Your task to perform on an android device: Go to location settings Image 0: 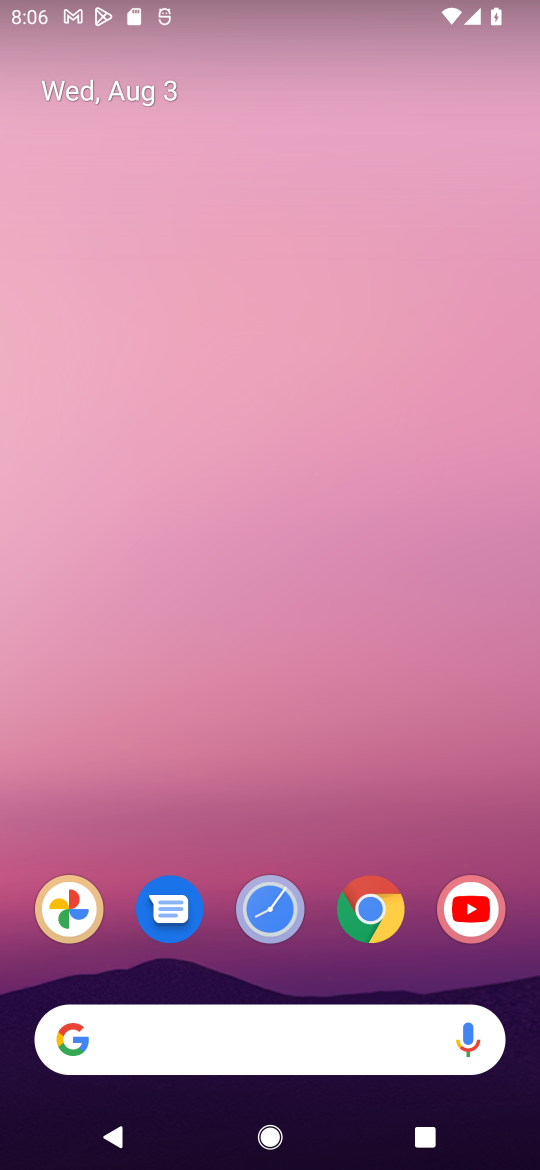
Step 0: drag from (312, 853) to (340, 323)
Your task to perform on an android device: Go to location settings Image 1: 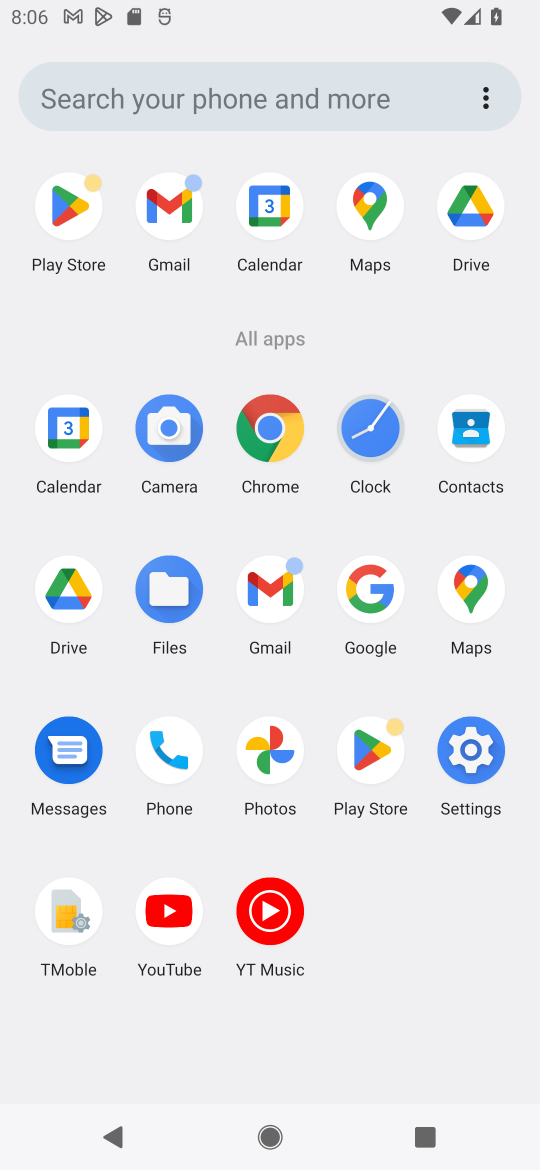
Step 1: click (487, 770)
Your task to perform on an android device: Go to location settings Image 2: 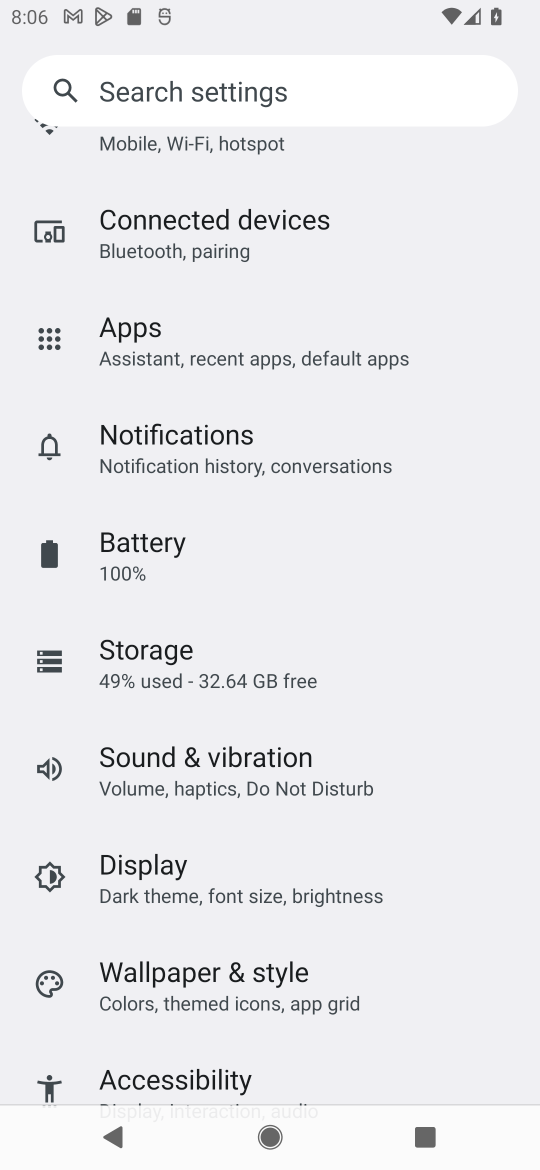
Step 2: drag from (427, 967) to (448, 842)
Your task to perform on an android device: Go to location settings Image 3: 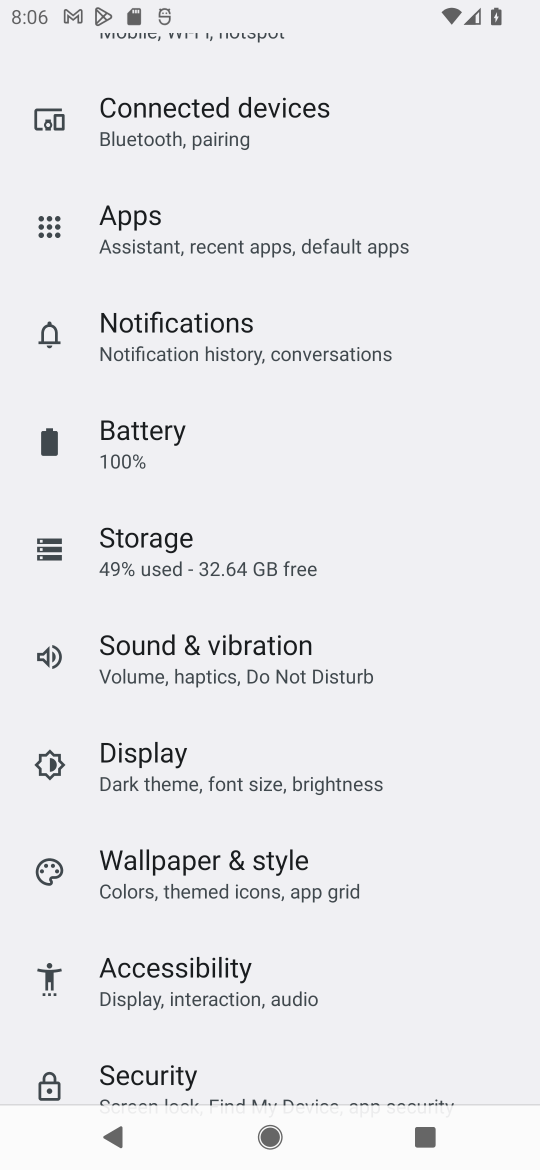
Step 3: drag from (431, 1005) to (442, 866)
Your task to perform on an android device: Go to location settings Image 4: 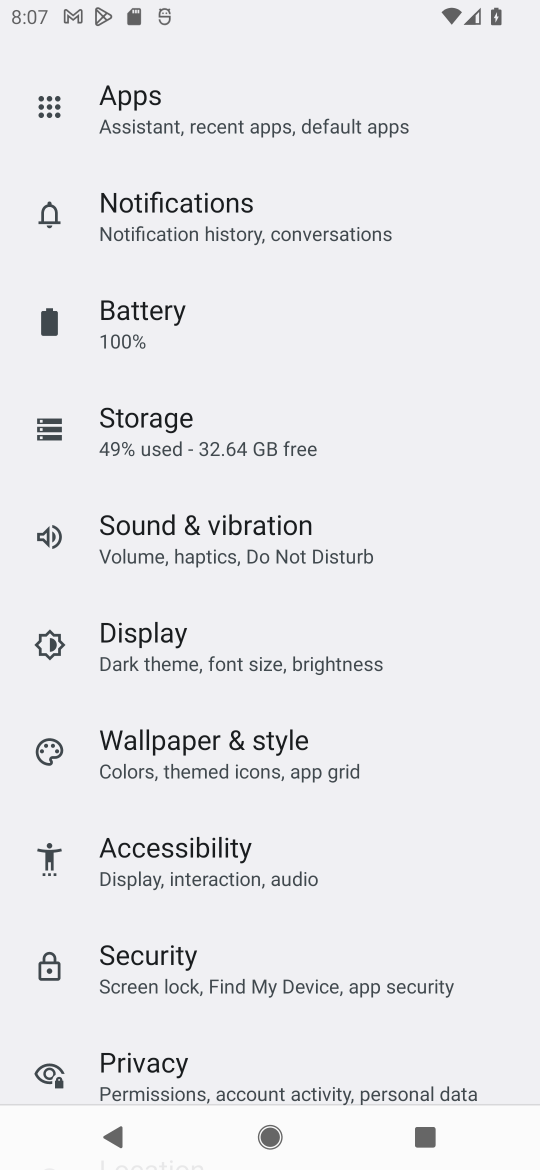
Step 4: drag from (463, 996) to (472, 698)
Your task to perform on an android device: Go to location settings Image 5: 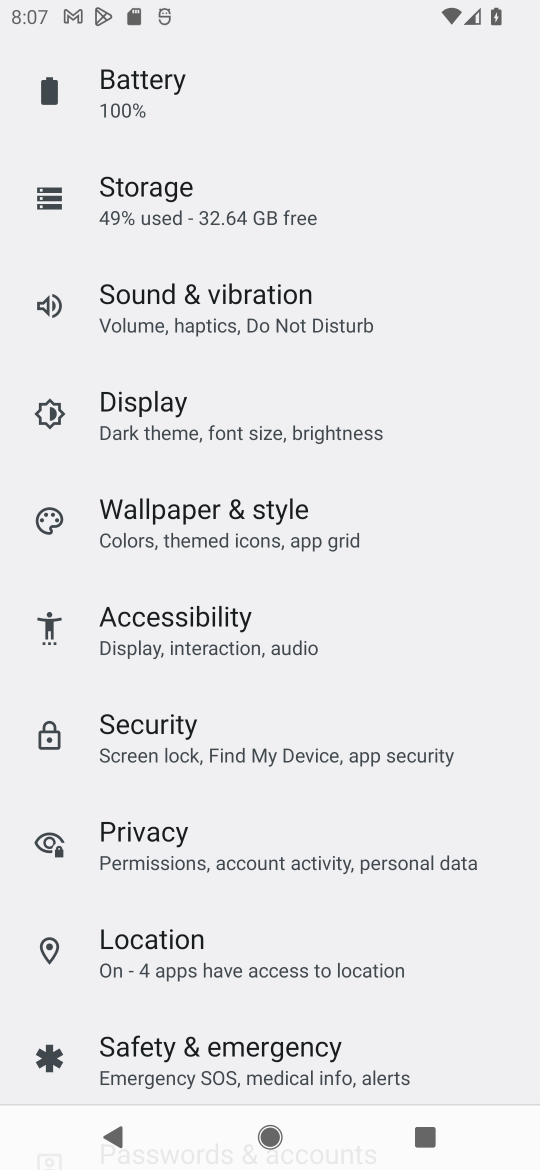
Step 5: drag from (453, 940) to (510, 537)
Your task to perform on an android device: Go to location settings Image 6: 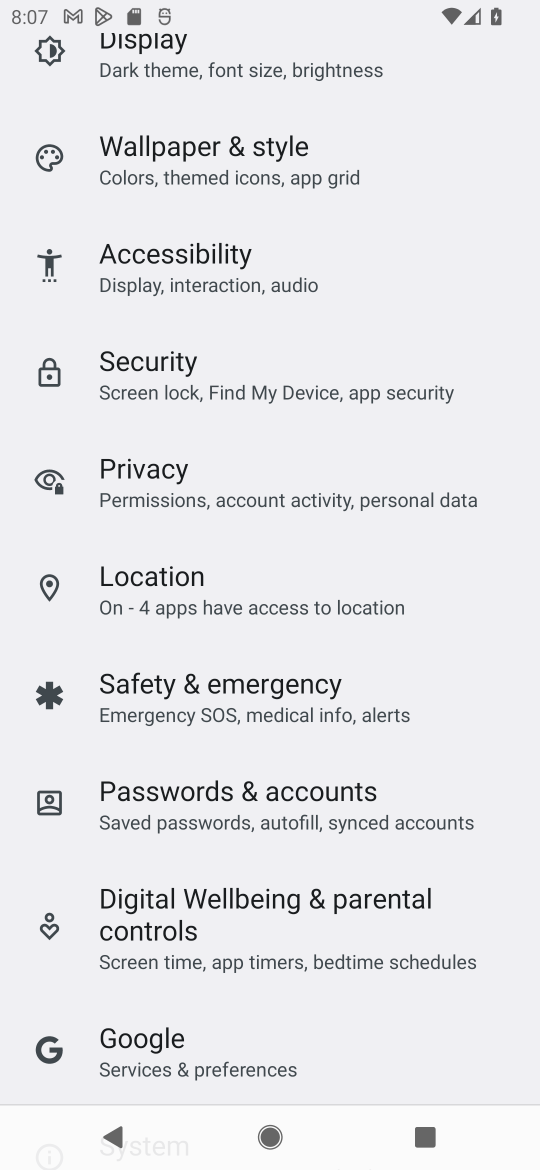
Step 6: drag from (425, 993) to (463, 761)
Your task to perform on an android device: Go to location settings Image 7: 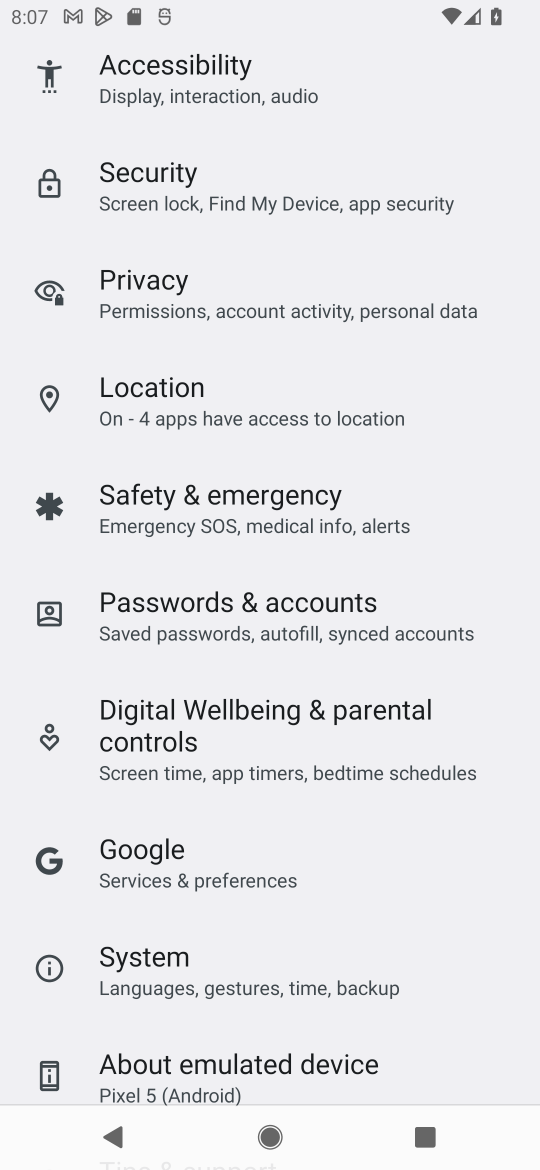
Step 7: drag from (460, 540) to (457, 681)
Your task to perform on an android device: Go to location settings Image 8: 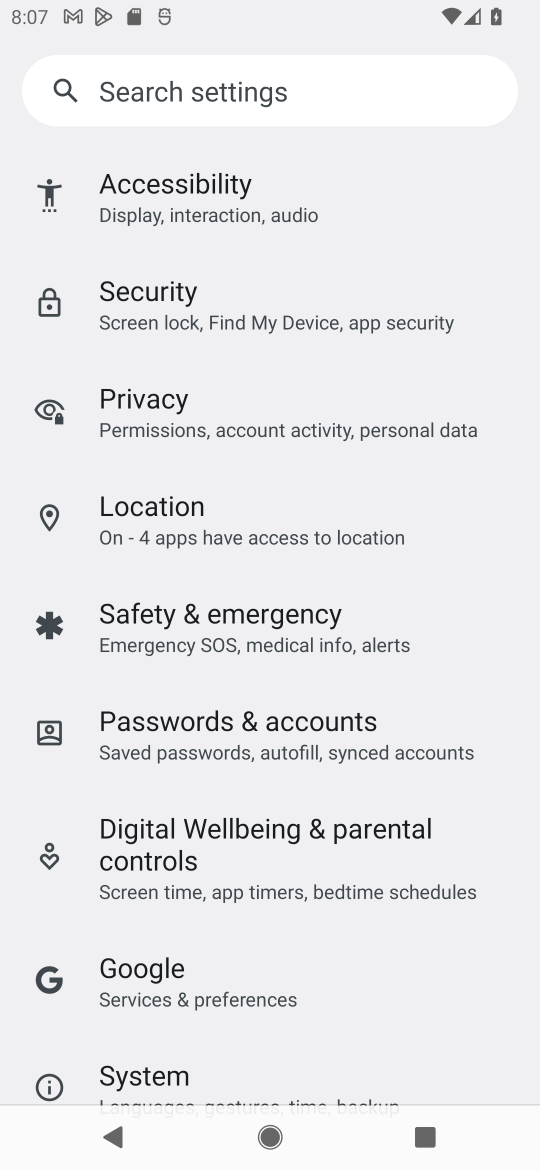
Step 8: drag from (479, 479) to (484, 830)
Your task to perform on an android device: Go to location settings Image 9: 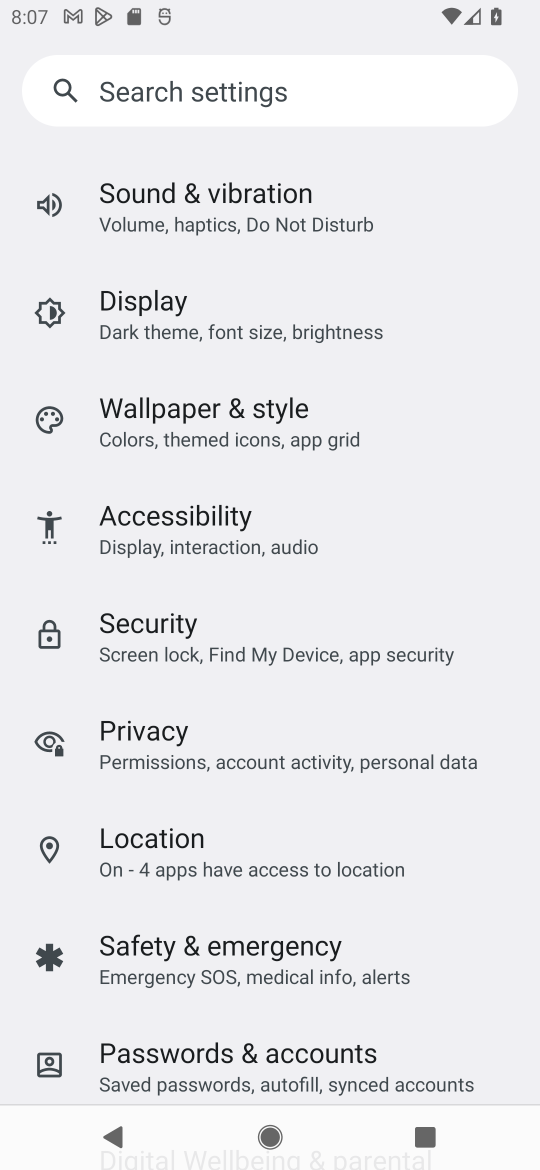
Step 9: click (281, 860)
Your task to perform on an android device: Go to location settings Image 10: 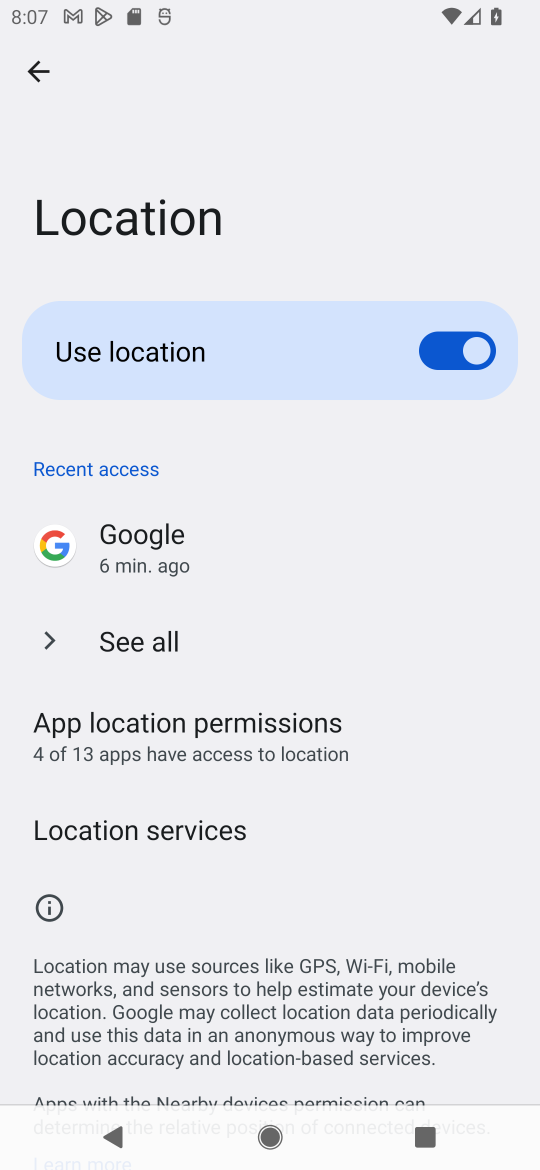
Step 10: task complete